Your task to perform on an android device: Set the phone to "Do not disturb". Image 0: 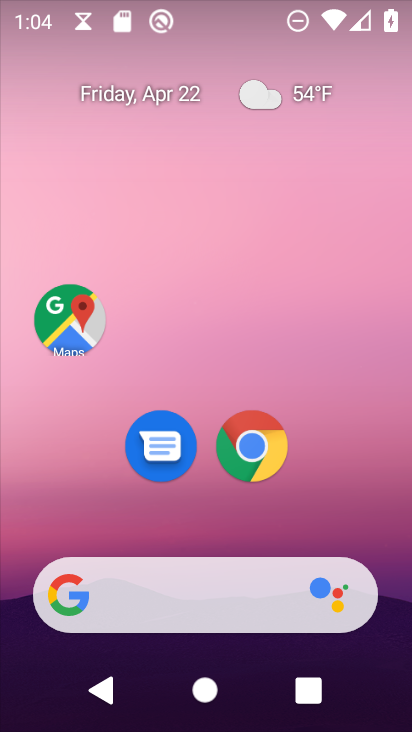
Step 0: drag from (362, 527) to (328, 164)
Your task to perform on an android device: Set the phone to "Do not disturb". Image 1: 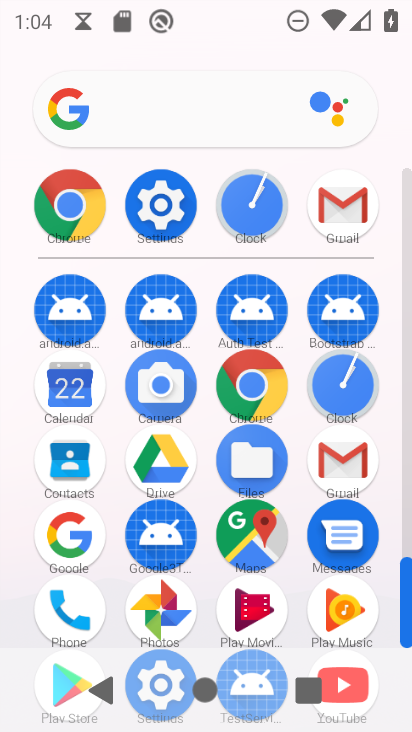
Step 1: click (172, 186)
Your task to perform on an android device: Set the phone to "Do not disturb". Image 2: 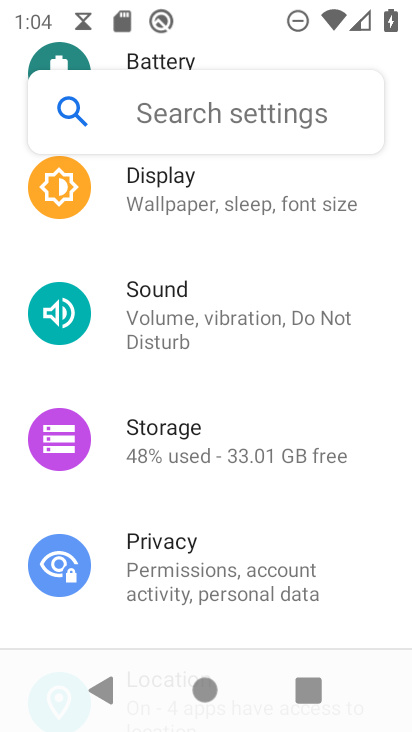
Step 2: click (247, 321)
Your task to perform on an android device: Set the phone to "Do not disturb". Image 3: 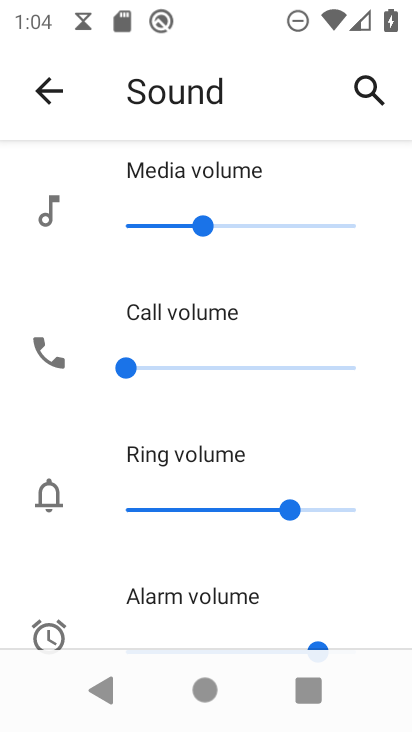
Step 3: task complete